Your task to perform on an android device: open a bookmark in the chrome app Image 0: 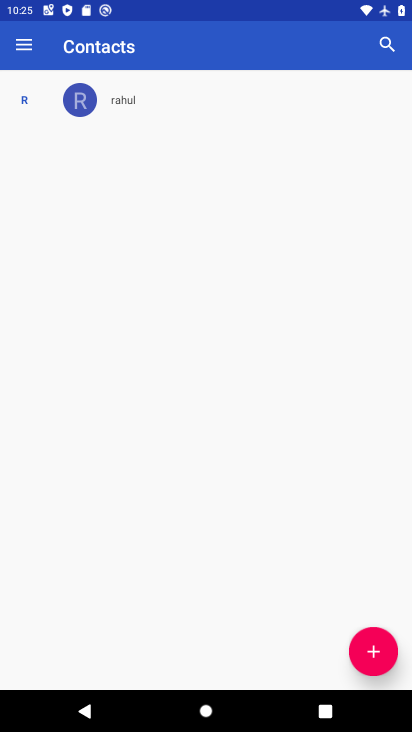
Step 0: press home button
Your task to perform on an android device: open a bookmark in the chrome app Image 1: 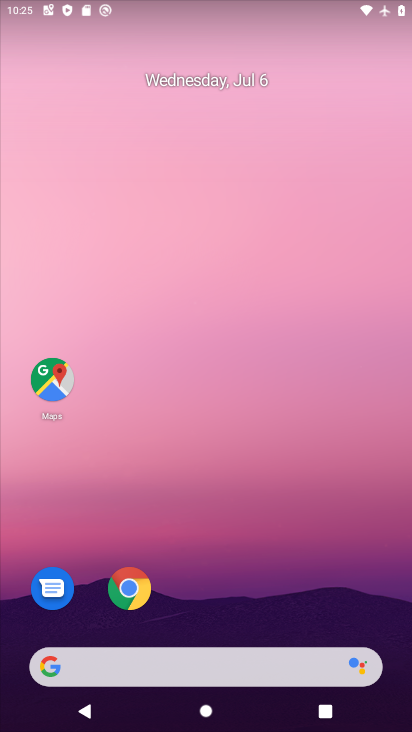
Step 1: drag from (213, 643) to (229, 208)
Your task to perform on an android device: open a bookmark in the chrome app Image 2: 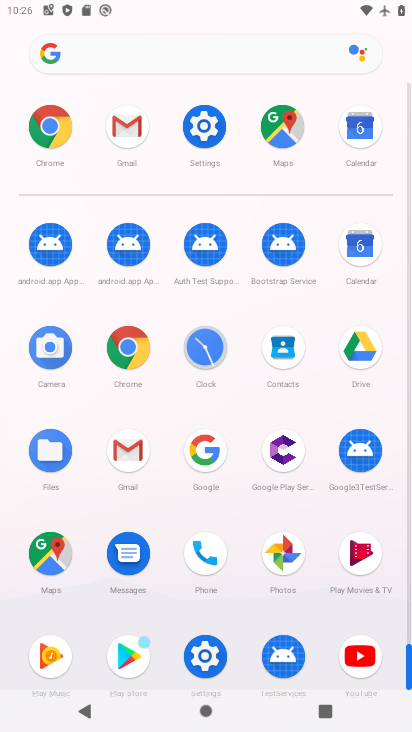
Step 2: click (120, 334)
Your task to perform on an android device: open a bookmark in the chrome app Image 3: 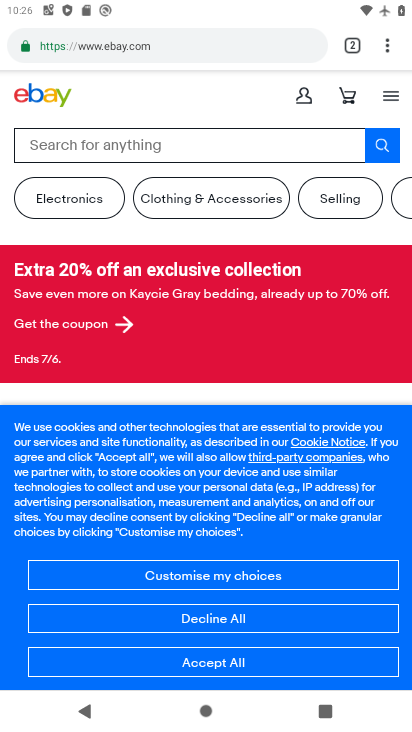
Step 3: click (386, 44)
Your task to perform on an android device: open a bookmark in the chrome app Image 4: 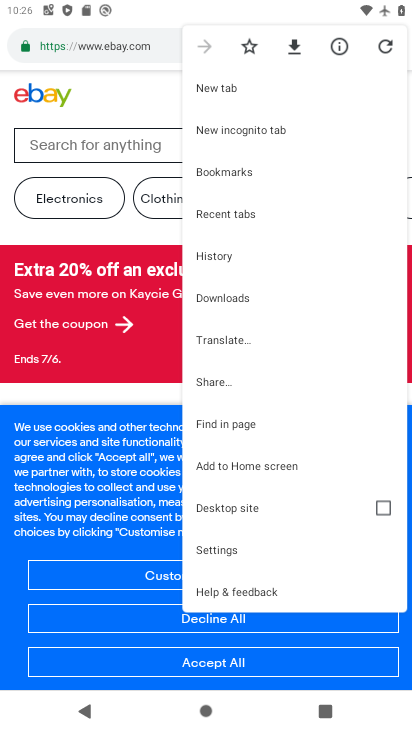
Step 4: click (224, 173)
Your task to perform on an android device: open a bookmark in the chrome app Image 5: 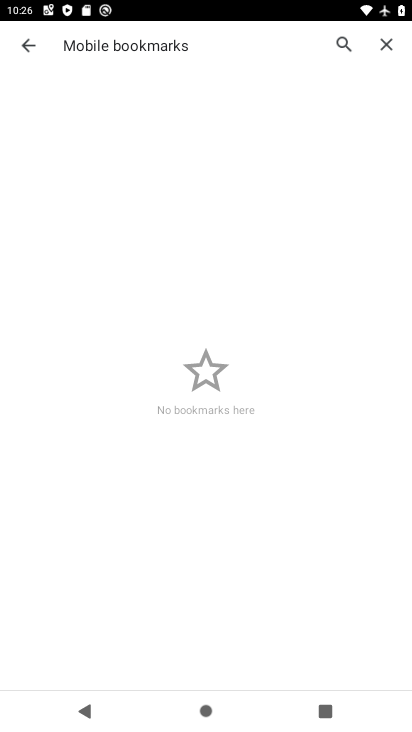
Step 5: task complete